Your task to perform on an android device: check the backup settings in the google photos Image 0: 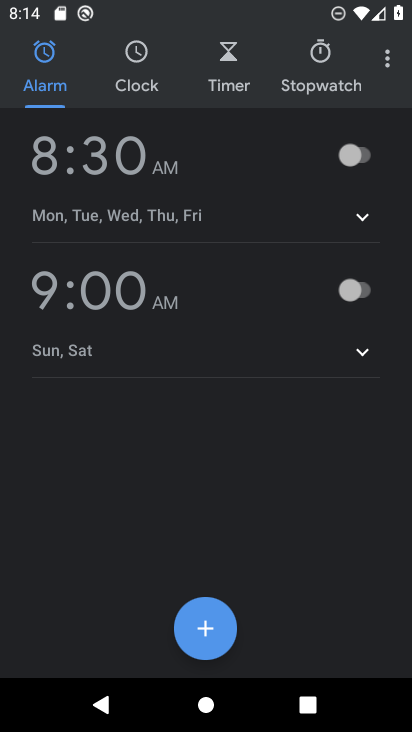
Step 0: press home button
Your task to perform on an android device: check the backup settings in the google photos Image 1: 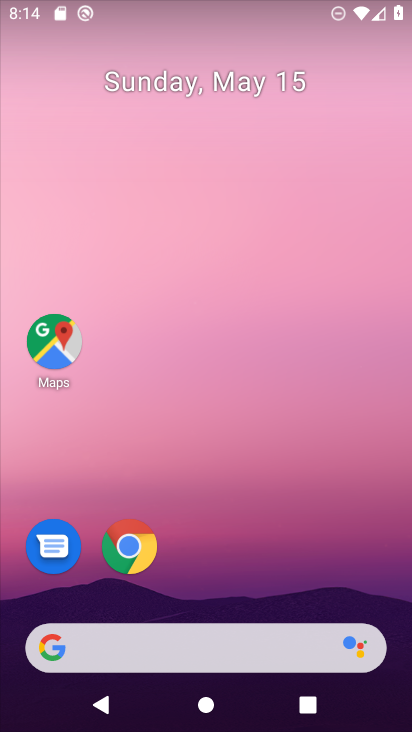
Step 1: drag from (247, 537) to (208, 67)
Your task to perform on an android device: check the backup settings in the google photos Image 2: 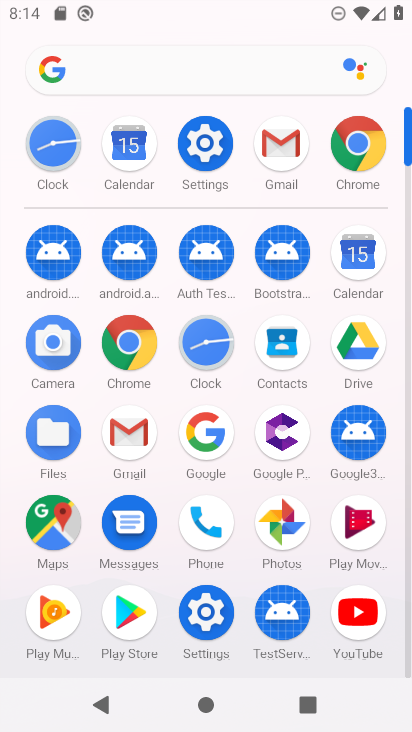
Step 2: click (283, 512)
Your task to perform on an android device: check the backup settings in the google photos Image 3: 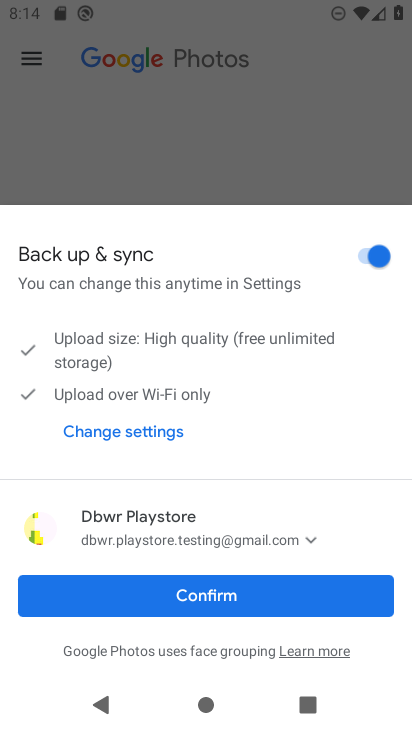
Step 3: click (327, 594)
Your task to perform on an android device: check the backup settings in the google photos Image 4: 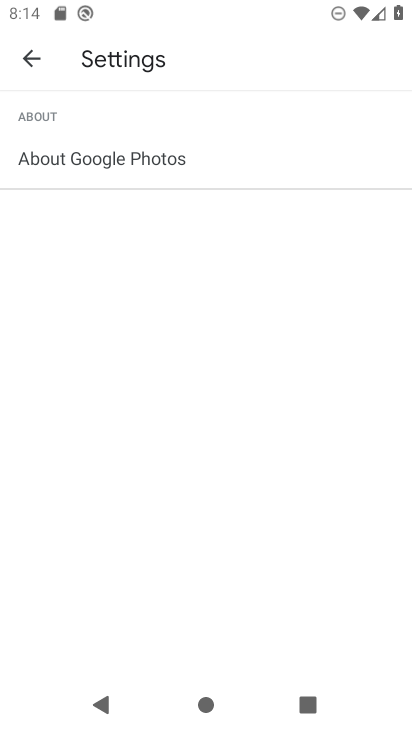
Step 4: click (28, 49)
Your task to perform on an android device: check the backup settings in the google photos Image 5: 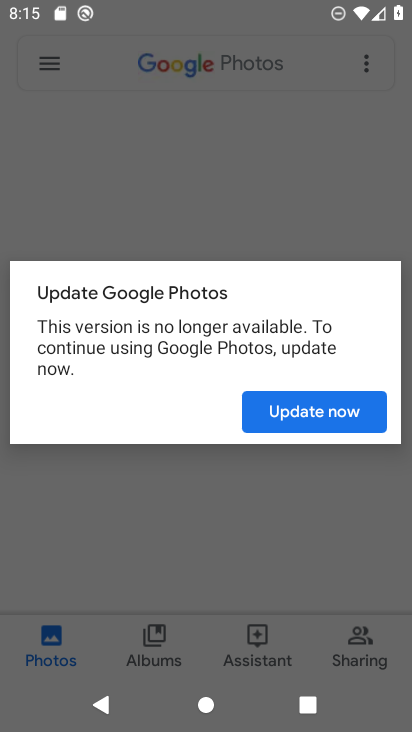
Step 5: click (271, 411)
Your task to perform on an android device: check the backup settings in the google photos Image 6: 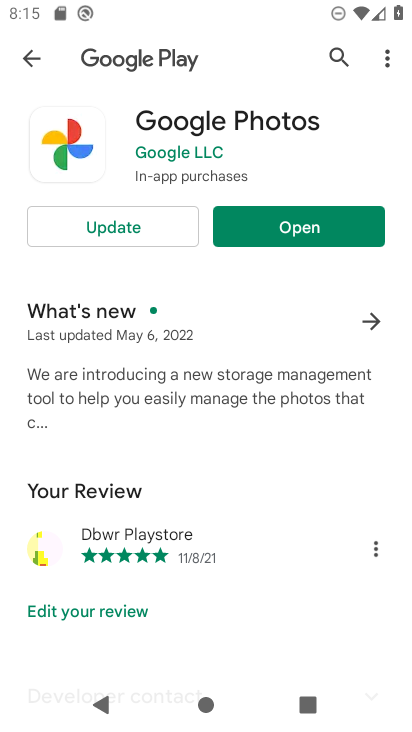
Step 6: click (301, 228)
Your task to perform on an android device: check the backup settings in the google photos Image 7: 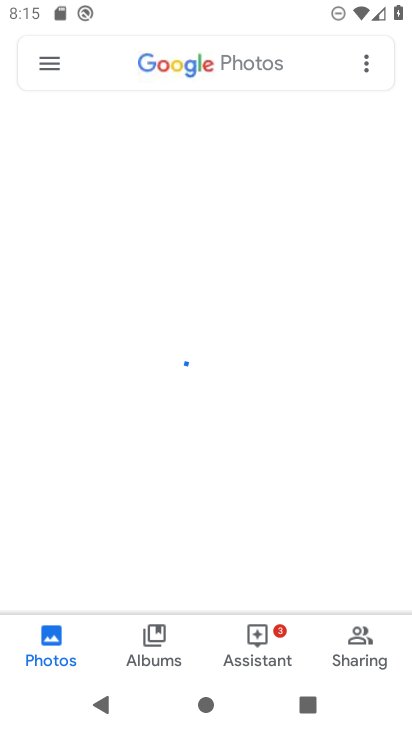
Step 7: click (49, 58)
Your task to perform on an android device: check the backup settings in the google photos Image 8: 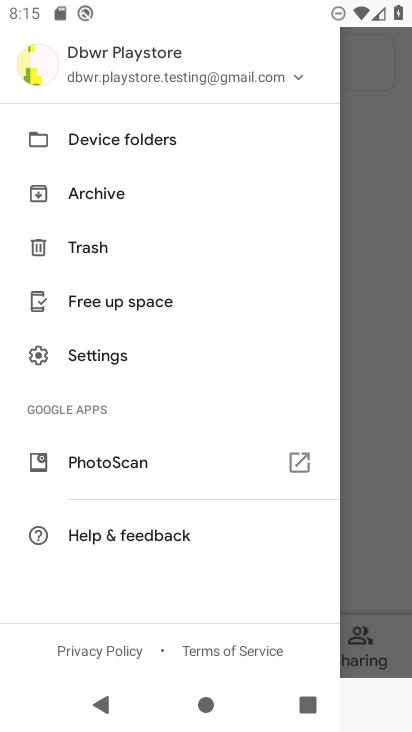
Step 8: click (111, 355)
Your task to perform on an android device: check the backup settings in the google photos Image 9: 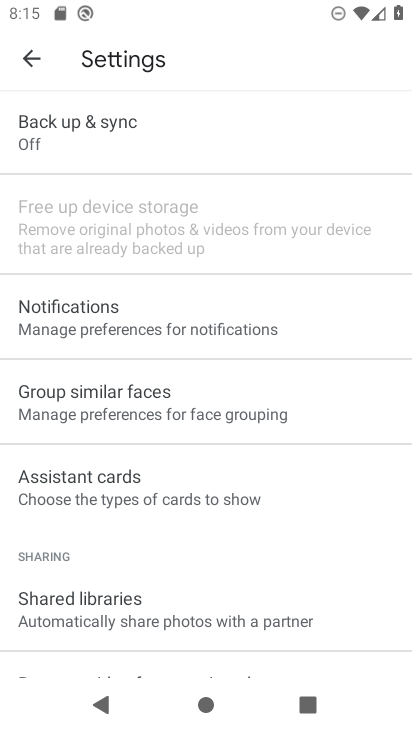
Step 9: click (87, 122)
Your task to perform on an android device: check the backup settings in the google photos Image 10: 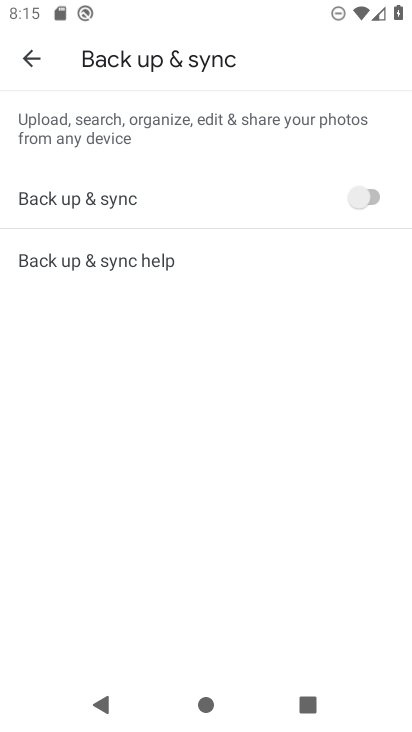
Step 10: click (371, 191)
Your task to perform on an android device: check the backup settings in the google photos Image 11: 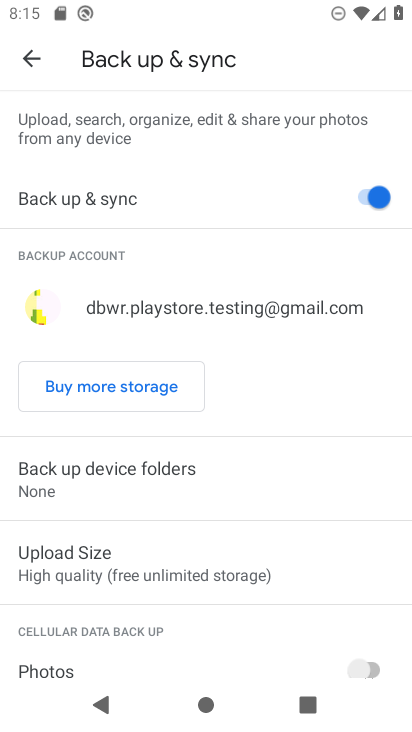
Step 11: task complete